Your task to perform on an android device: change notification settings in the gmail app Image 0: 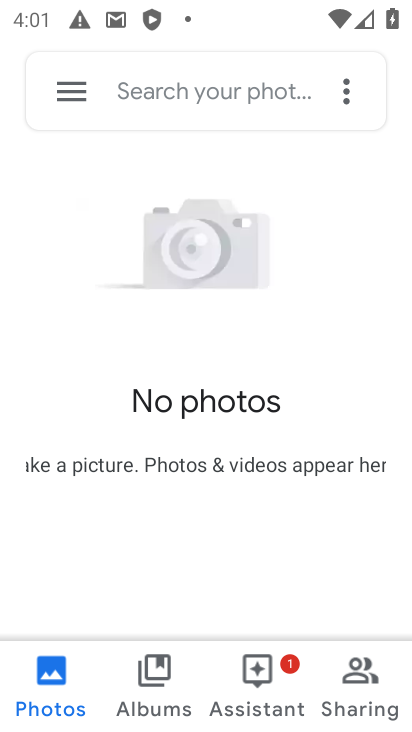
Step 0: press home button
Your task to perform on an android device: change notification settings in the gmail app Image 1: 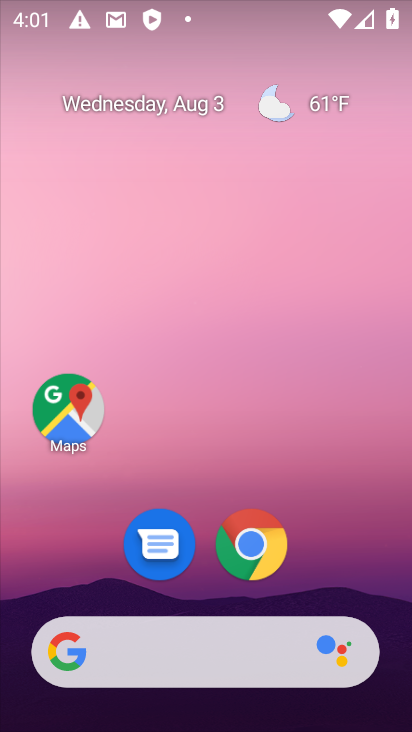
Step 1: drag from (324, 585) to (401, 601)
Your task to perform on an android device: change notification settings in the gmail app Image 2: 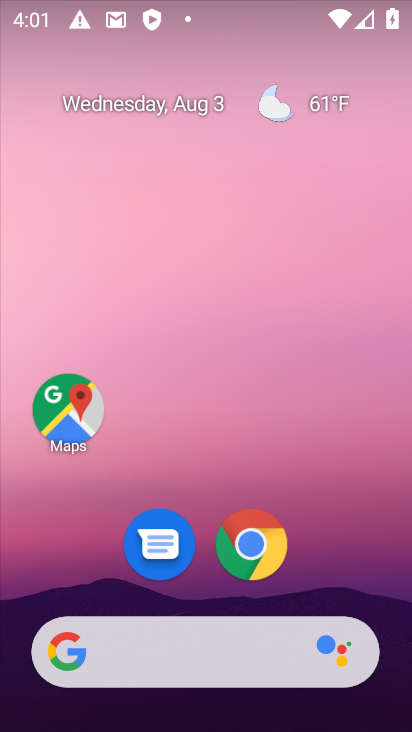
Step 2: drag from (340, 597) to (367, 34)
Your task to perform on an android device: change notification settings in the gmail app Image 3: 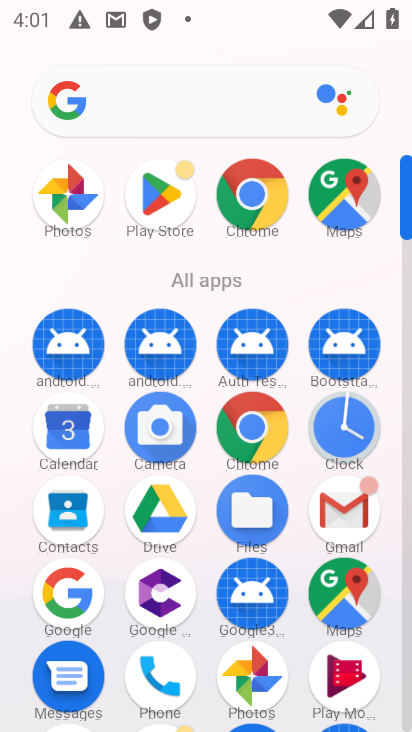
Step 3: click (344, 510)
Your task to perform on an android device: change notification settings in the gmail app Image 4: 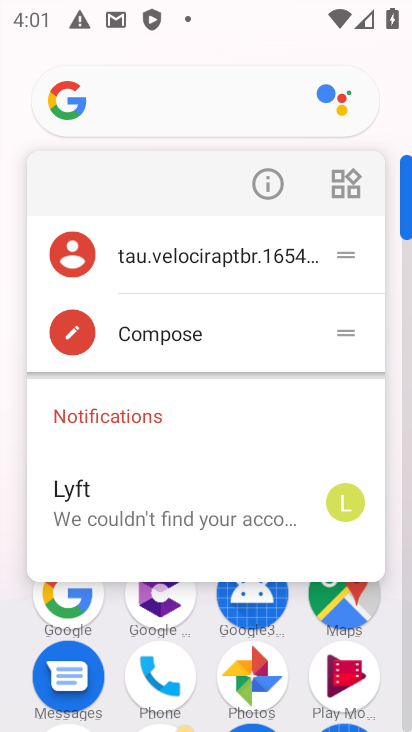
Step 4: click (271, 176)
Your task to perform on an android device: change notification settings in the gmail app Image 5: 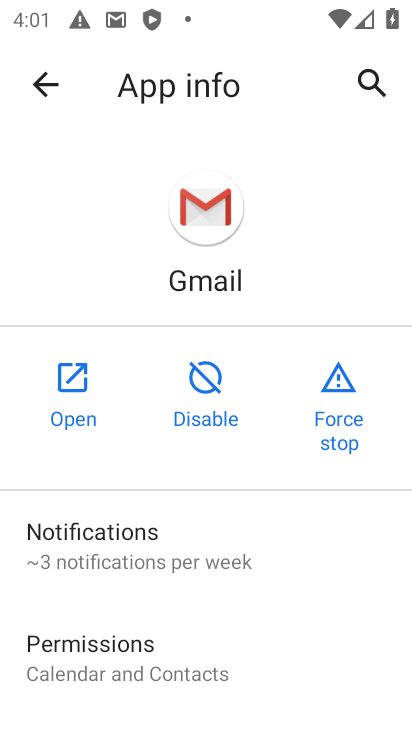
Step 5: click (259, 552)
Your task to perform on an android device: change notification settings in the gmail app Image 6: 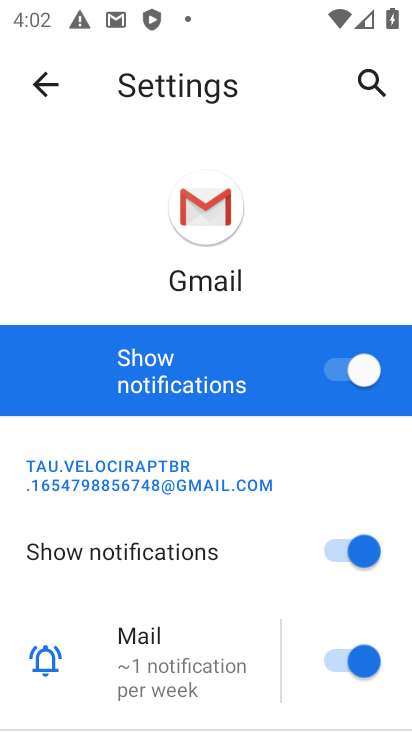
Step 6: click (349, 370)
Your task to perform on an android device: change notification settings in the gmail app Image 7: 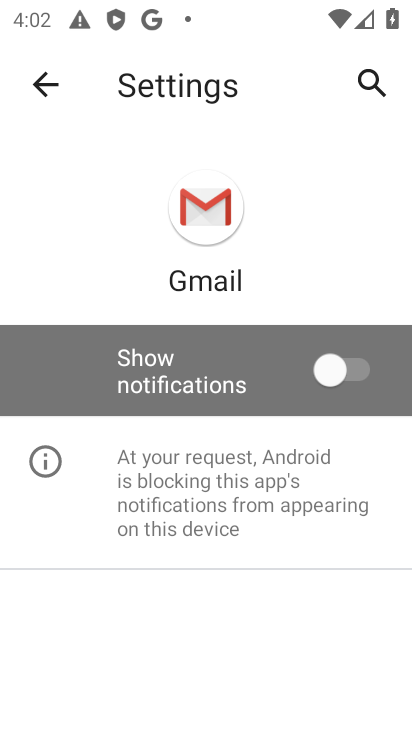
Step 7: task complete